Your task to perform on an android device: turn on sleep mode Image 0: 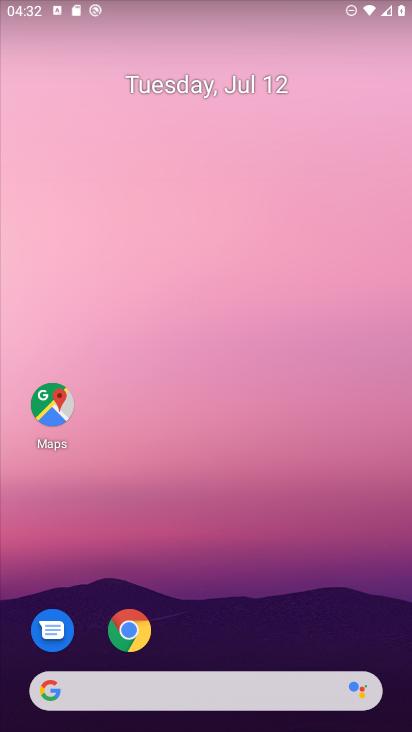
Step 0: drag from (373, 635) to (332, 106)
Your task to perform on an android device: turn on sleep mode Image 1: 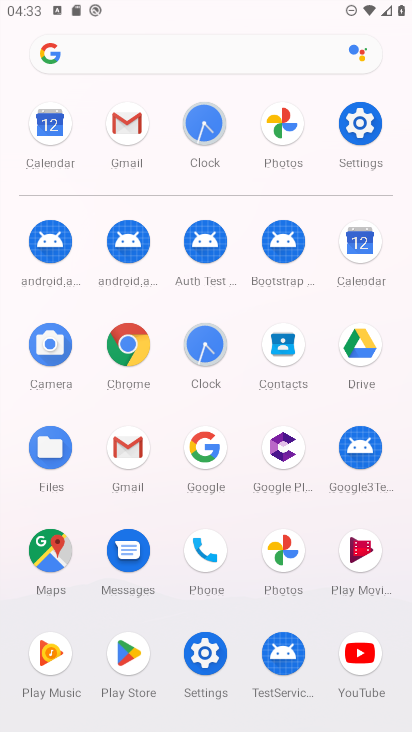
Step 1: click (205, 655)
Your task to perform on an android device: turn on sleep mode Image 2: 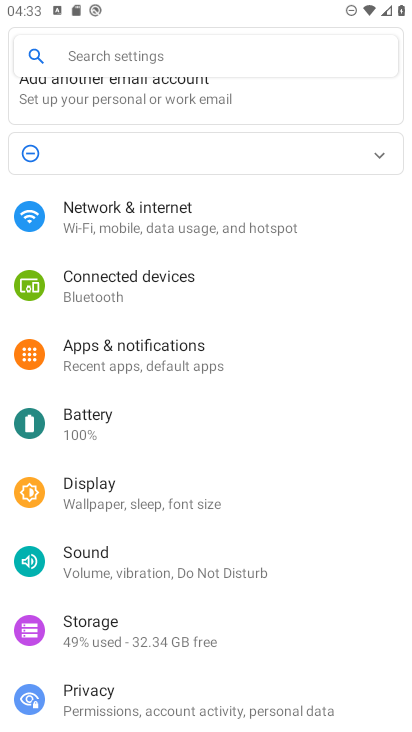
Step 2: click (97, 496)
Your task to perform on an android device: turn on sleep mode Image 3: 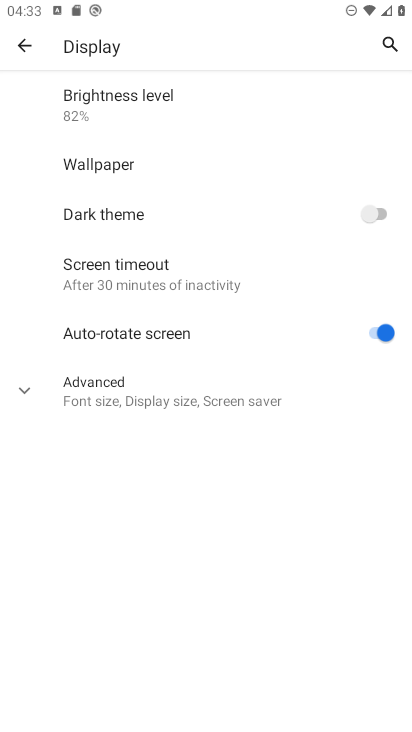
Step 3: click (18, 390)
Your task to perform on an android device: turn on sleep mode Image 4: 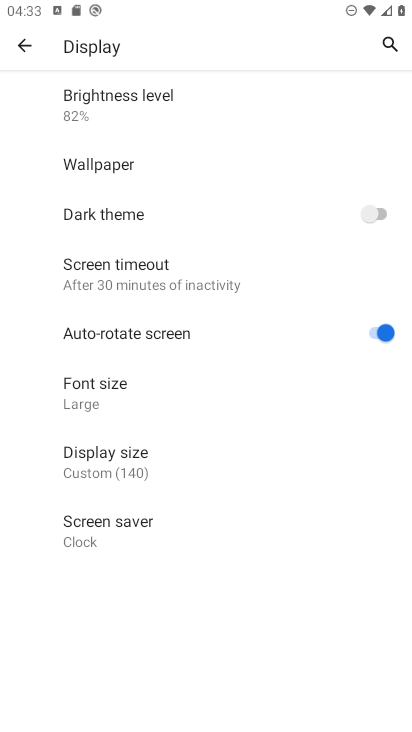
Step 4: task complete